Your task to perform on an android device: Go to CNN.com Image 0: 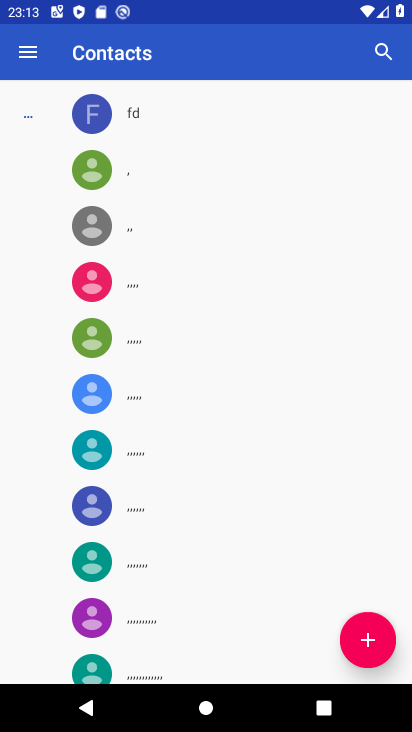
Step 0: press back button
Your task to perform on an android device: Go to CNN.com Image 1: 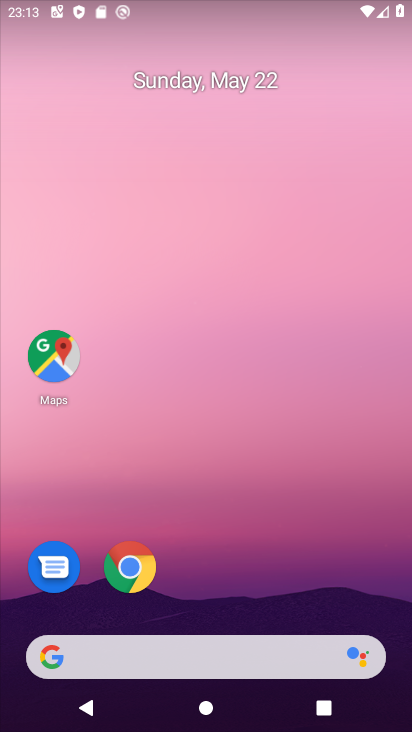
Step 1: drag from (297, 520) to (273, 6)
Your task to perform on an android device: Go to CNN.com Image 2: 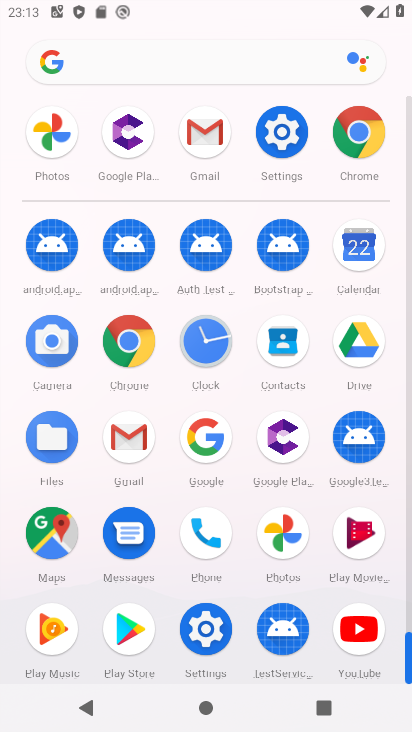
Step 2: click (132, 341)
Your task to perform on an android device: Go to CNN.com Image 3: 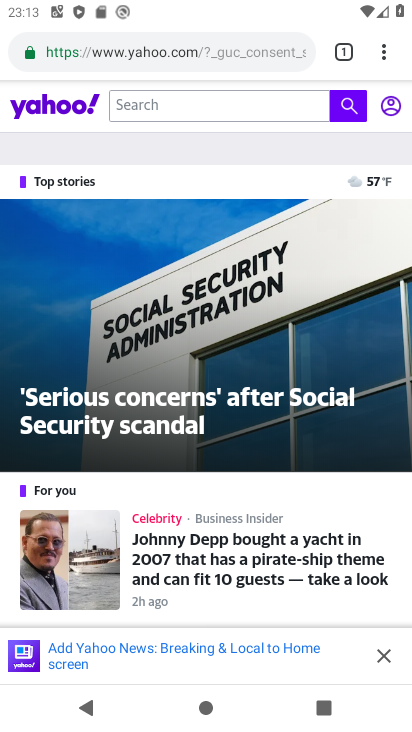
Step 3: click (196, 45)
Your task to perform on an android device: Go to CNN.com Image 4: 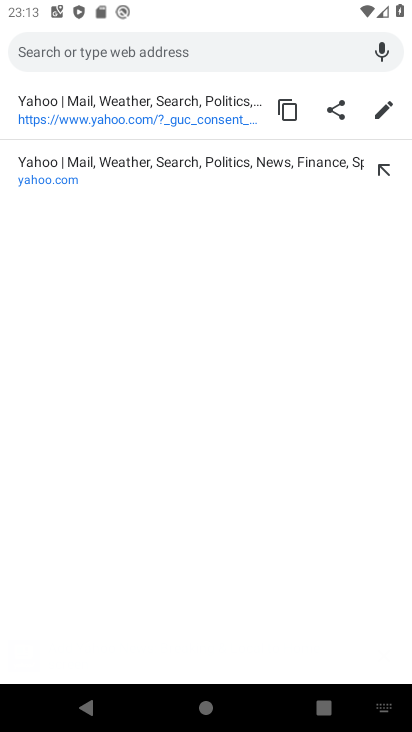
Step 4: type "CNN.com"
Your task to perform on an android device: Go to CNN.com Image 5: 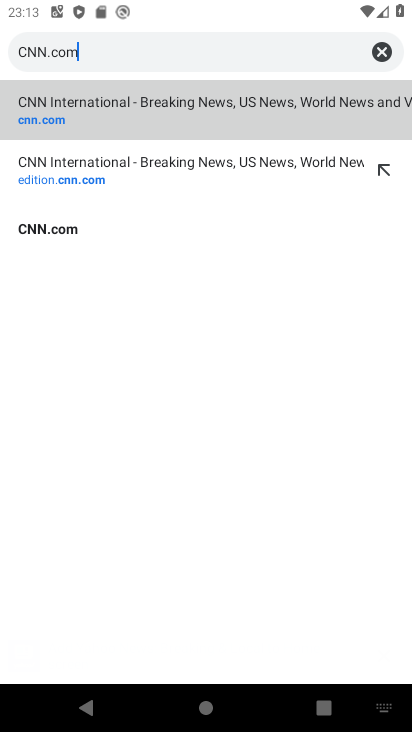
Step 5: type ""
Your task to perform on an android device: Go to CNN.com Image 6: 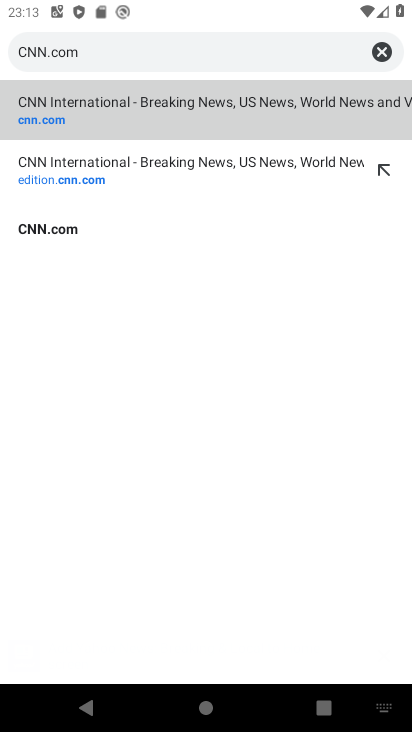
Step 6: click (108, 116)
Your task to perform on an android device: Go to CNN.com Image 7: 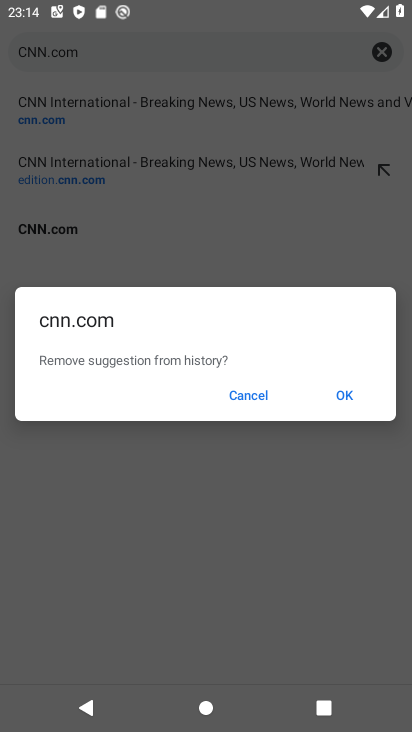
Step 7: click (341, 396)
Your task to perform on an android device: Go to CNN.com Image 8: 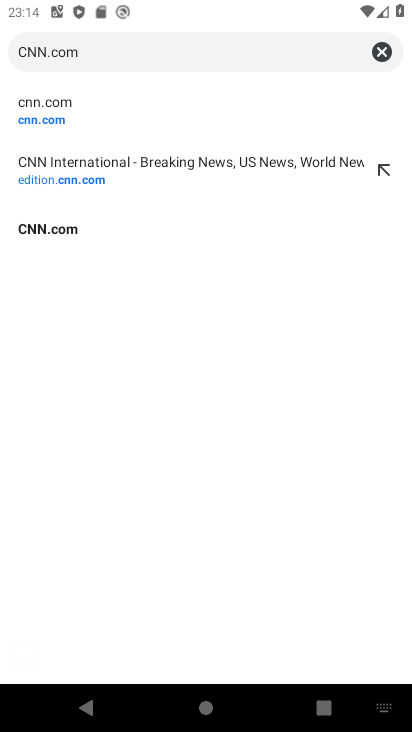
Step 8: click (120, 115)
Your task to perform on an android device: Go to CNN.com Image 9: 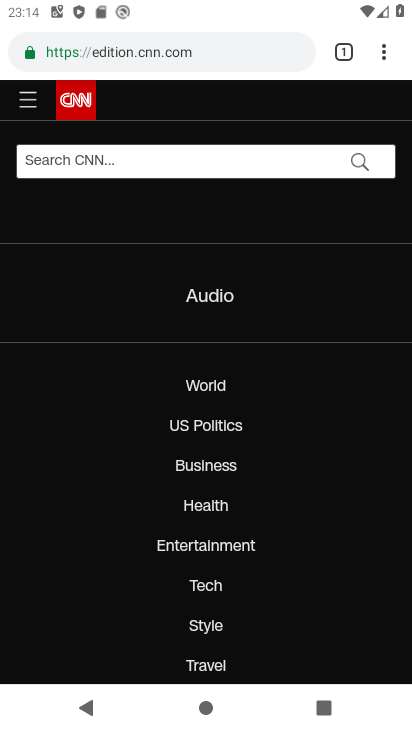
Step 9: task complete